Your task to perform on an android device: toggle translation in the chrome app Image 0: 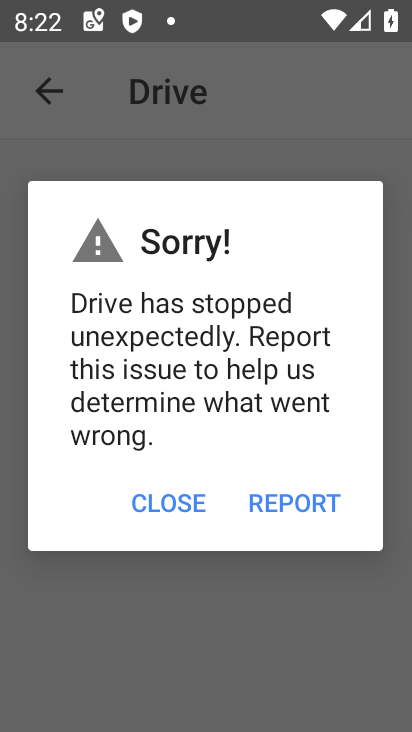
Step 0: press home button
Your task to perform on an android device: toggle translation in the chrome app Image 1: 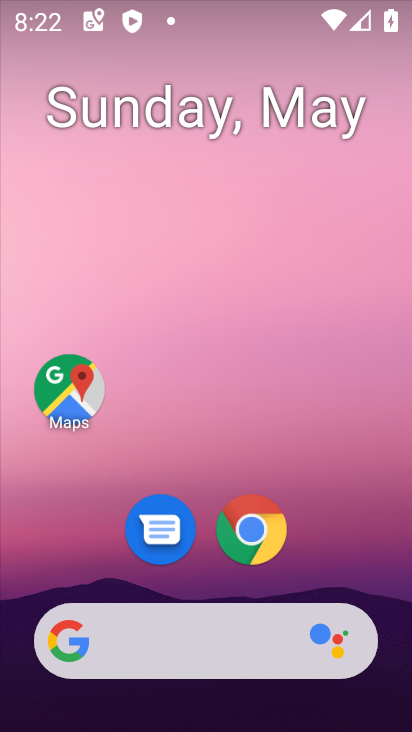
Step 1: click (260, 538)
Your task to perform on an android device: toggle translation in the chrome app Image 2: 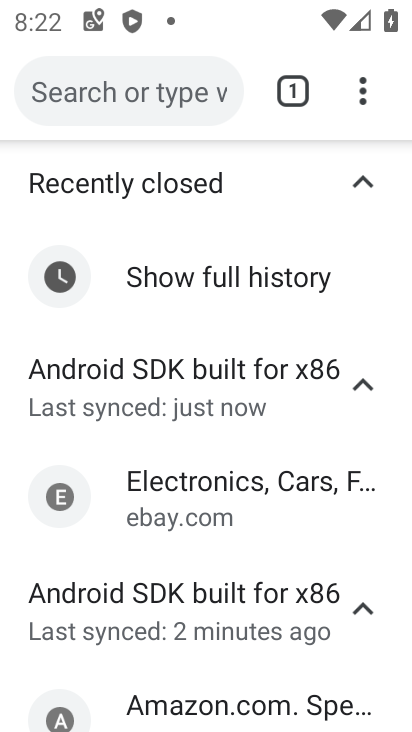
Step 2: click (367, 89)
Your task to perform on an android device: toggle translation in the chrome app Image 3: 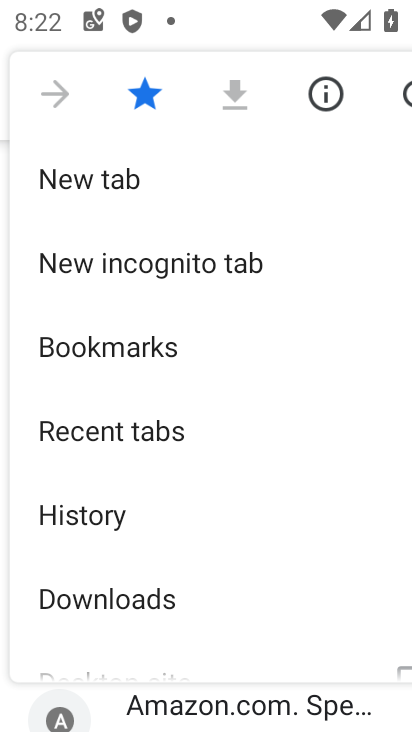
Step 3: drag from (266, 602) to (273, 139)
Your task to perform on an android device: toggle translation in the chrome app Image 4: 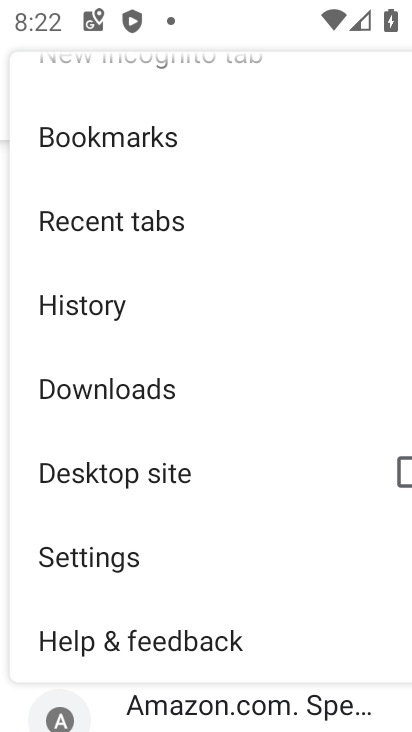
Step 4: click (84, 563)
Your task to perform on an android device: toggle translation in the chrome app Image 5: 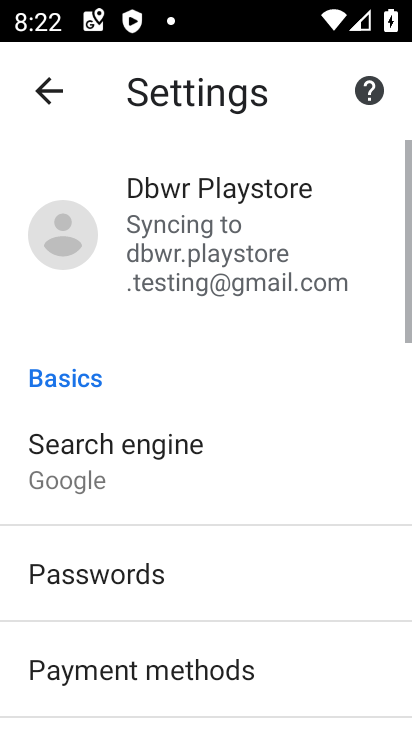
Step 5: drag from (232, 644) to (164, 156)
Your task to perform on an android device: toggle translation in the chrome app Image 6: 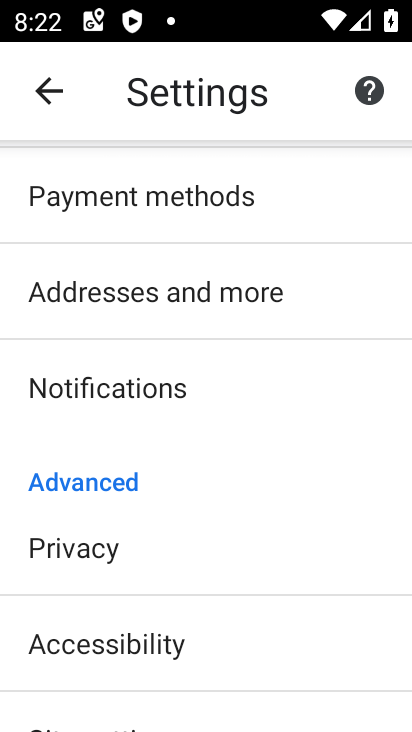
Step 6: drag from (171, 559) to (182, 177)
Your task to perform on an android device: toggle translation in the chrome app Image 7: 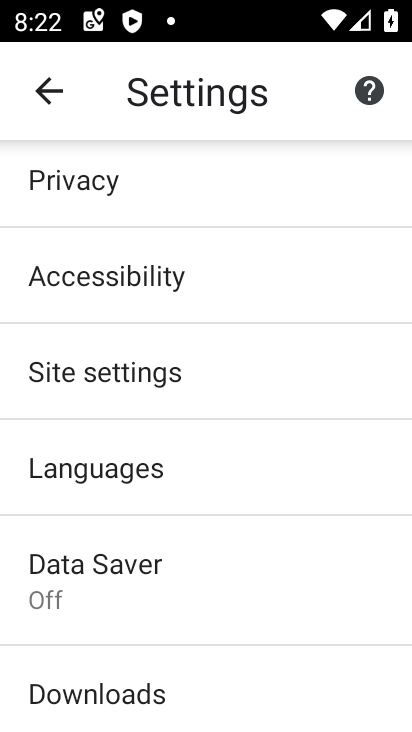
Step 7: click (120, 468)
Your task to perform on an android device: toggle translation in the chrome app Image 8: 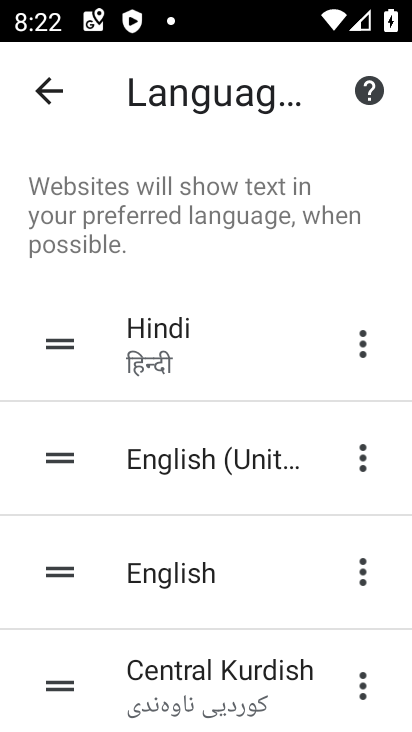
Step 8: drag from (250, 599) to (213, 229)
Your task to perform on an android device: toggle translation in the chrome app Image 9: 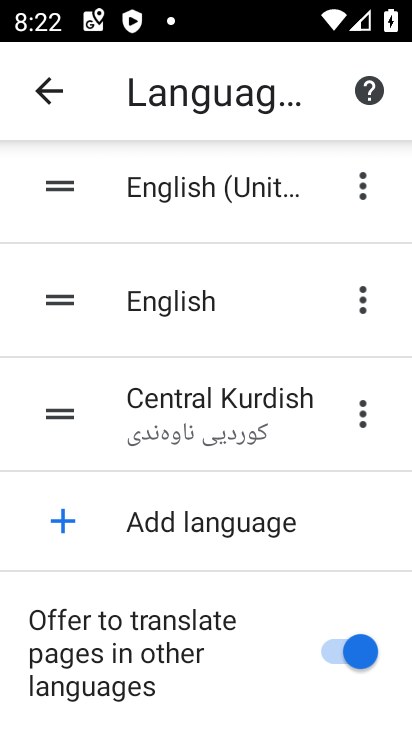
Step 9: click (358, 647)
Your task to perform on an android device: toggle translation in the chrome app Image 10: 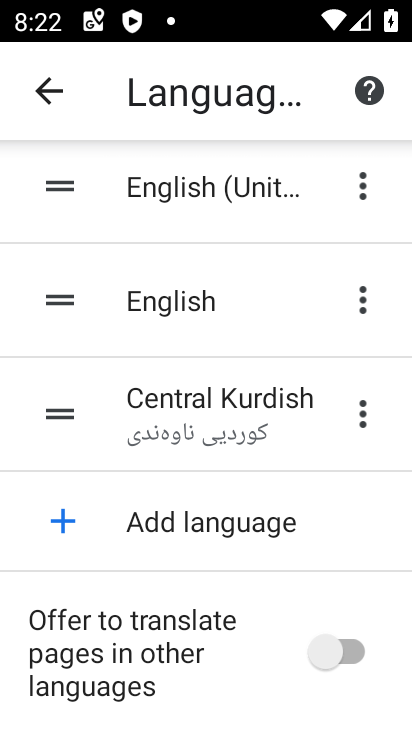
Step 10: task complete